Your task to perform on an android device: check android version Image 0: 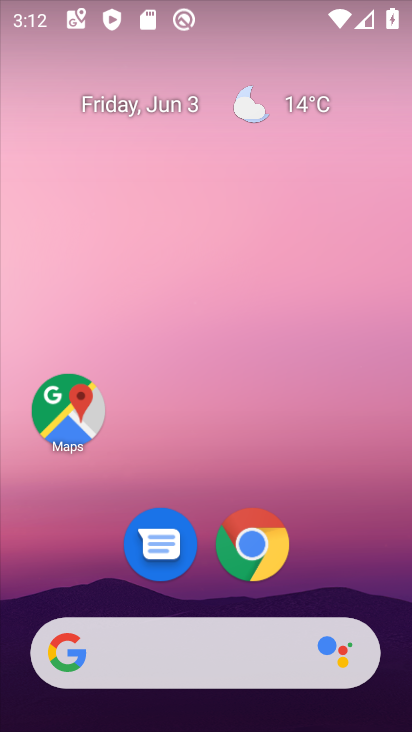
Step 0: drag from (370, 600) to (333, 155)
Your task to perform on an android device: check android version Image 1: 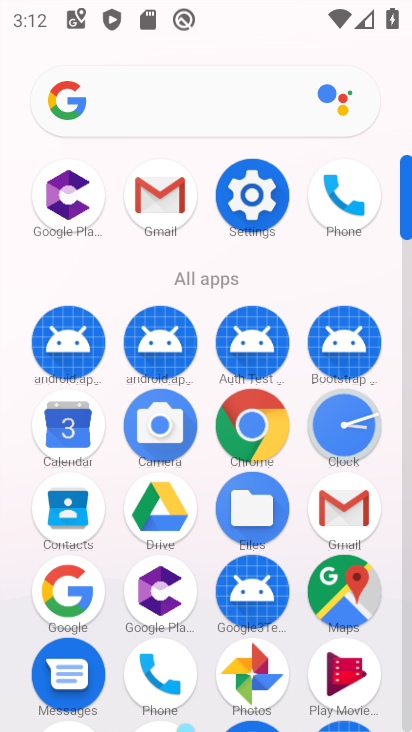
Step 1: click (257, 195)
Your task to perform on an android device: check android version Image 2: 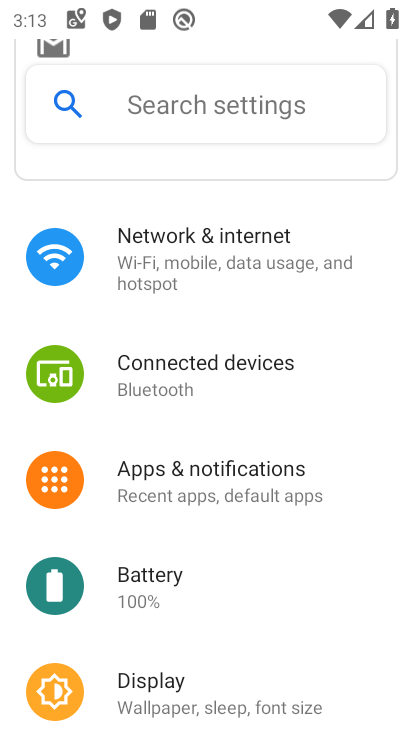
Step 2: drag from (334, 572) to (305, 411)
Your task to perform on an android device: check android version Image 3: 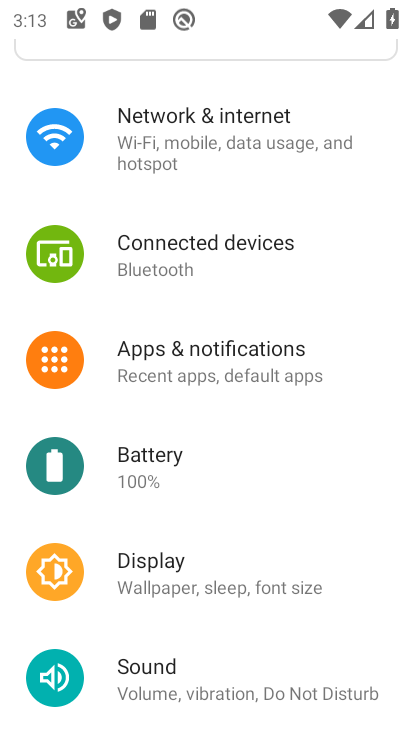
Step 3: drag from (363, 646) to (313, 426)
Your task to perform on an android device: check android version Image 4: 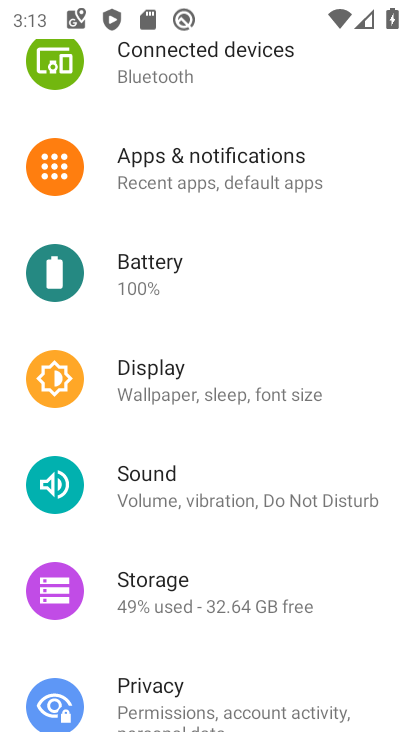
Step 4: drag from (329, 616) to (314, 218)
Your task to perform on an android device: check android version Image 5: 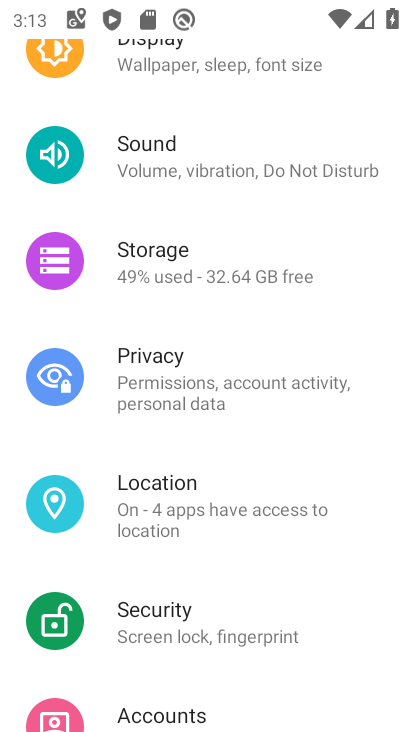
Step 5: drag from (326, 628) to (297, 223)
Your task to perform on an android device: check android version Image 6: 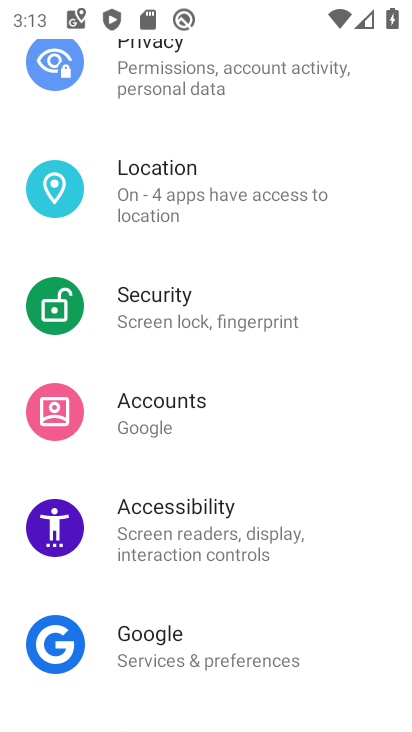
Step 6: drag from (234, 595) to (200, 440)
Your task to perform on an android device: check android version Image 7: 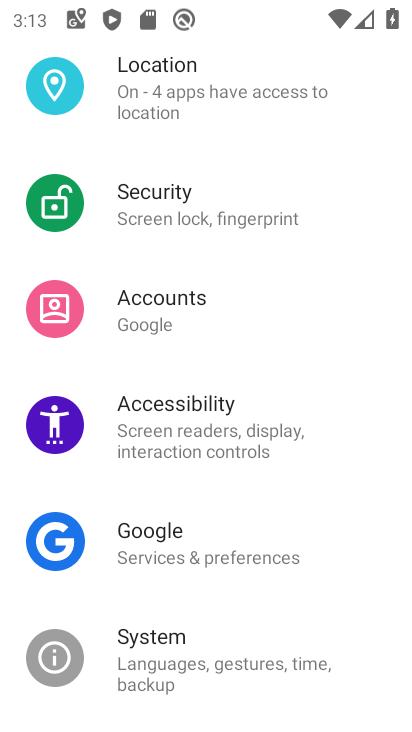
Step 7: drag from (228, 670) to (180, 193)
Your task to perform on an android device: check android version Image 8: 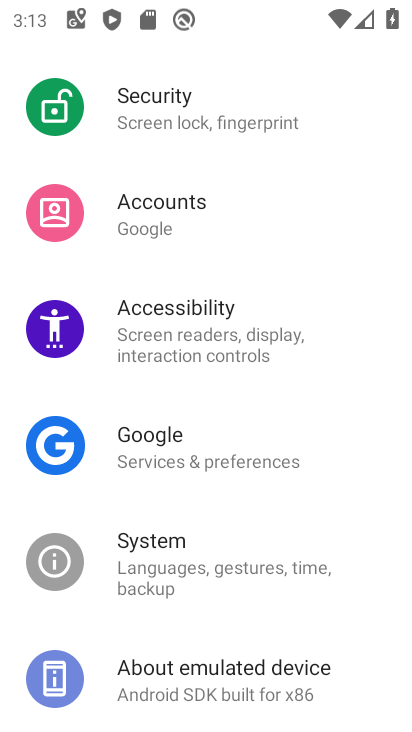
Step 8: click (196, 667)
Your task to perform on an android device: check android version Image 9: 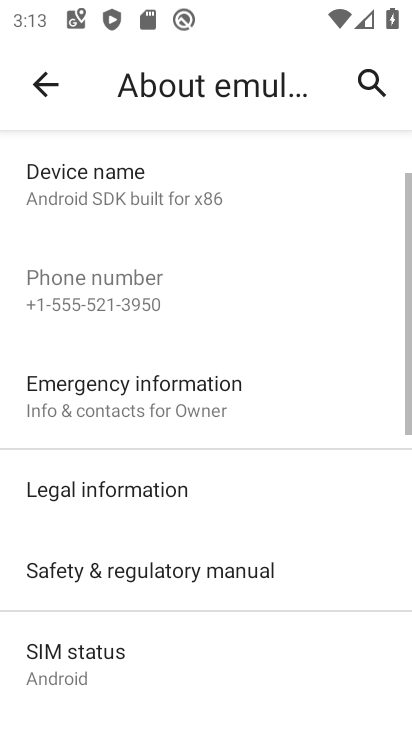
Step 9: drag from (264, 656) to (295, 228)
Your task to perform on an android device: check android version Image 10: 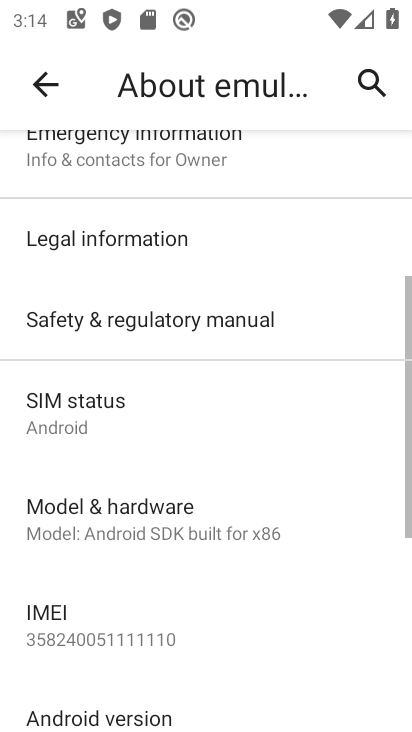
Step 10: drag from (286, 653) to (285, 333)
Your task to perform on an android device: check android version Image 11: 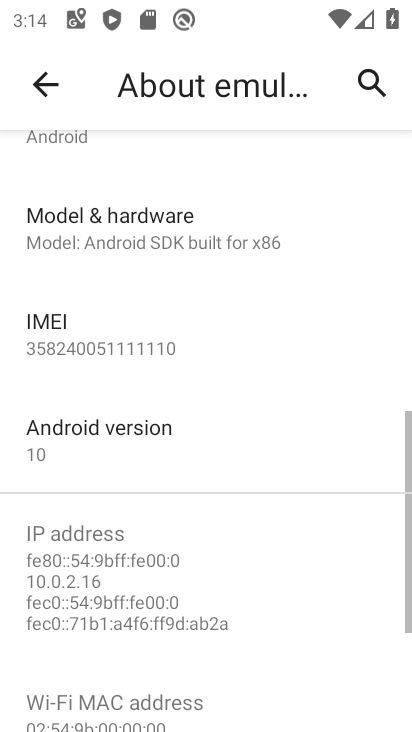
Step 11: click (143, 430)
Your task to perform on an android device: check android version Image 12: 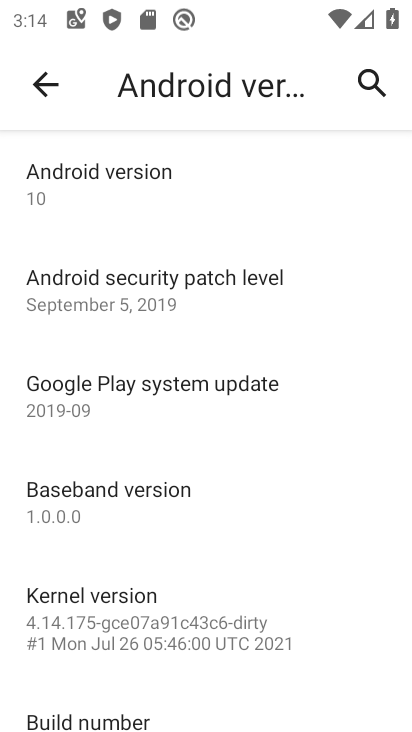
Step 12: task complete